Your task to perform on an android device: Go to network settings Image 0: 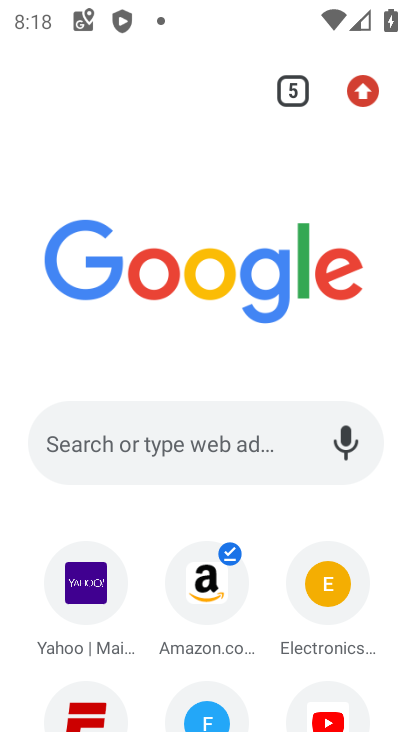
Step 0: press home button
Your task to perform on an android device: Go to network settings Image 1: 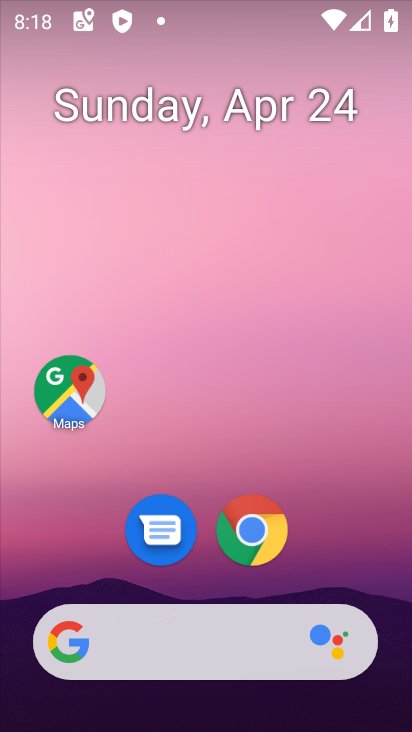
Step 1: drag from (206, 577) to (176, 208)
Your task to perform on an android device: Go to network settings Image 2: 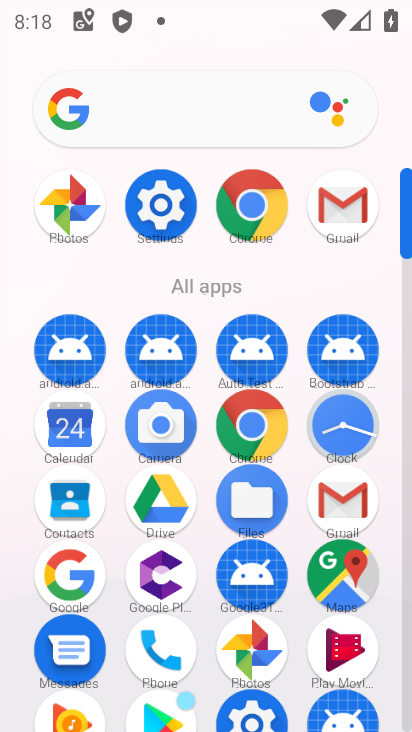
Step 2: click (153, 194)
Your task to perform on an android device: Go to network settings Image 3: 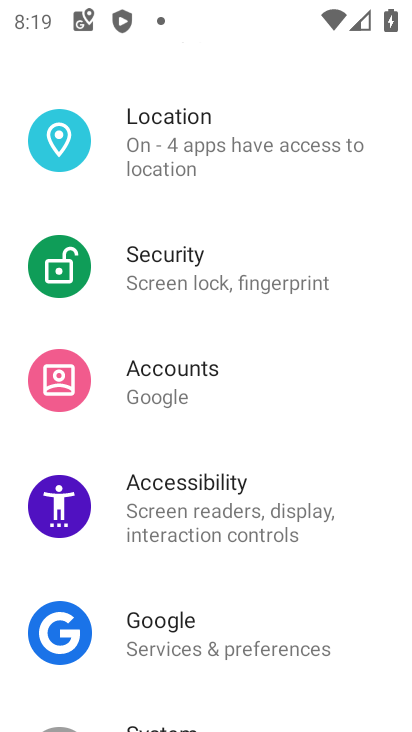
Step 3: drag from (187, 212) to (271, 686)
Your task to perform on an android device: Go to network settings Image 4: 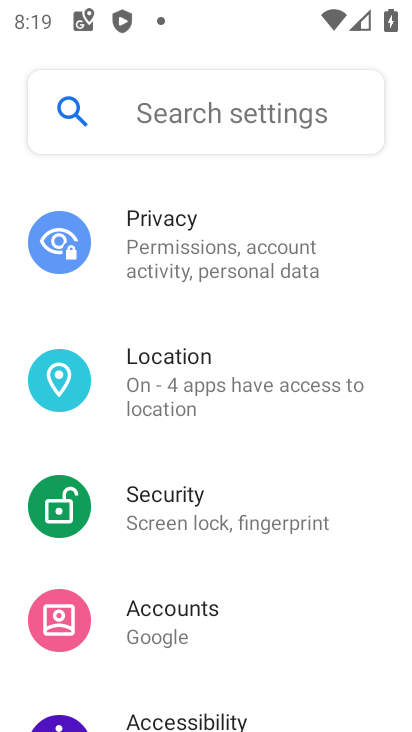
Step 4: drag from (166, 243) to (249, 670)
Your task to perform on an android device: Go to network settings Image 5: 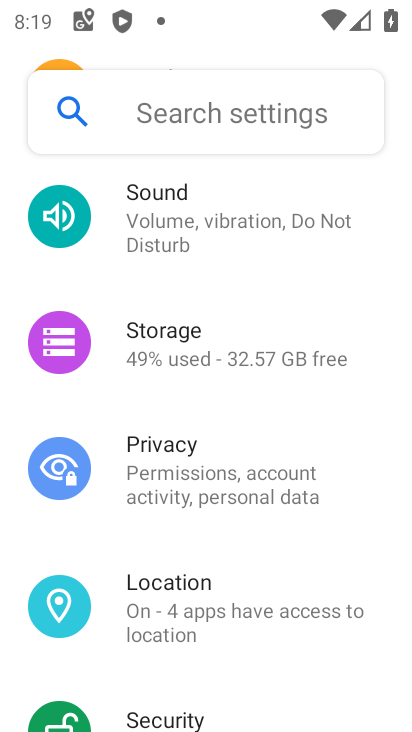
Step 5: drag from (251, 235) to (395, 680)
Your task to perform on an android device: Go to network settings Image 6: 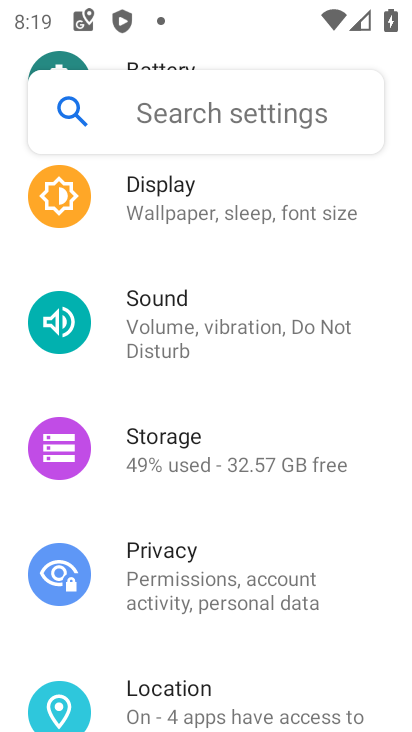
Step 6: drag from (194, 207) to (295, 639)
Your task to perform on an android device: Go to network settings Image 7: 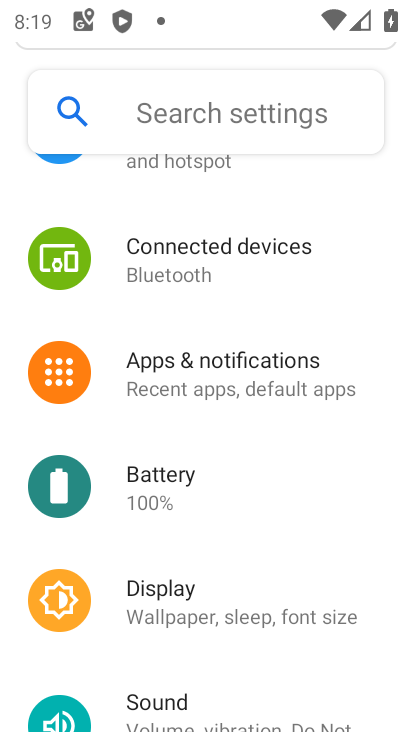
Step 7: drag from (205, 231) to (206, 658)
Your task to perform on an android device: Go to network settings Image 8: 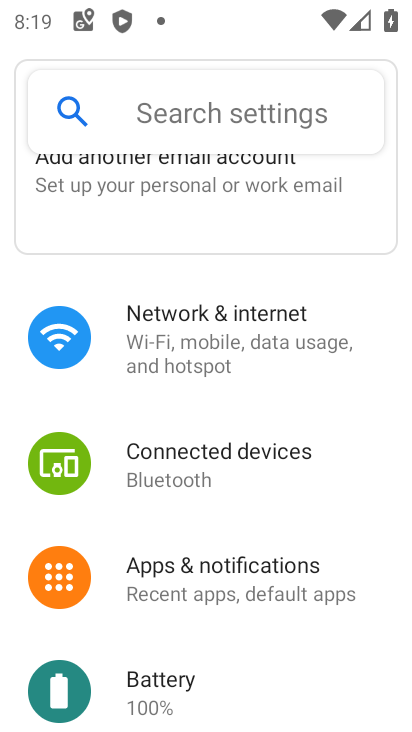
Step 8: drag from (206, 658) to (233, 289)
Your task to perform on an android device: Go to network settings Image 9: 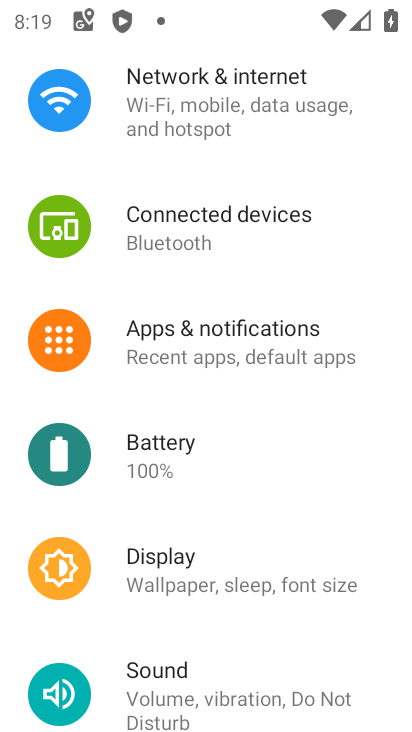
Step 9: click (241, 128)
Your task to perform on an android device: Go to network settings Image 10: 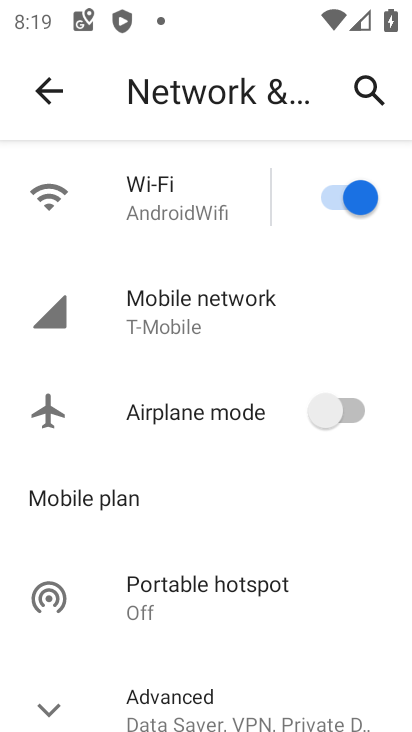
Step 10: click (212, 333)
Your task to perform on an android device: Go to network settings Image 11: 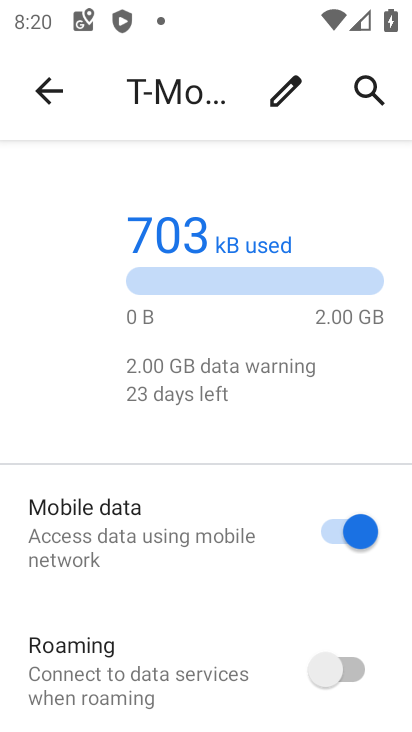
Step 11: task complete